Your task to perform on an android device: Go to location settings Image 0: 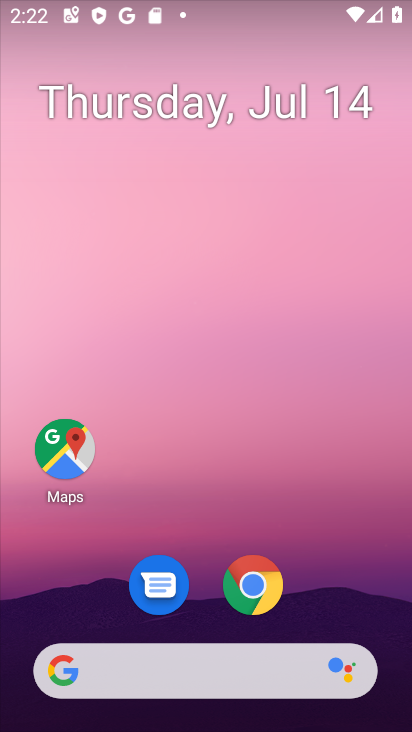
Step 0: drag from (336, 595) to (292, 43)
Your task to perform on an android device: Go to location settings Image 1: 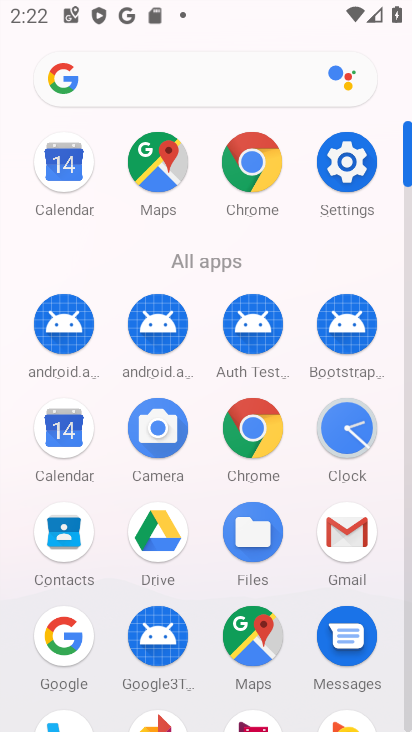
Step 1: click (353, 170)
Your task to perform on an android device: Go to location settings Image 2: 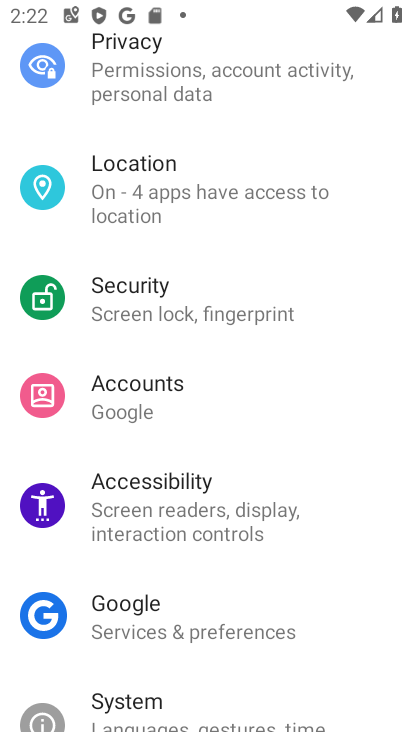
Step 2: click (252, 170)
Your task to perform on an android device: Go to location settings Image 3: 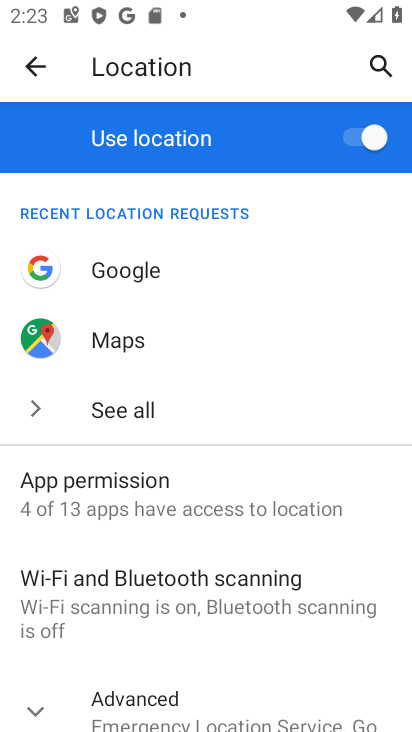
Step 3: task complete